Your task to perform on an android device: turn on sleep mode Image 0: 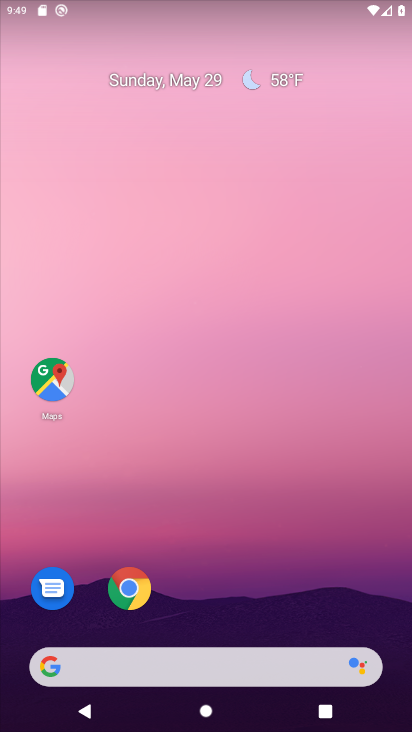
Step 0: click (123, 50)
Your task to perform on an android device: turn on sleep mode Image 1: 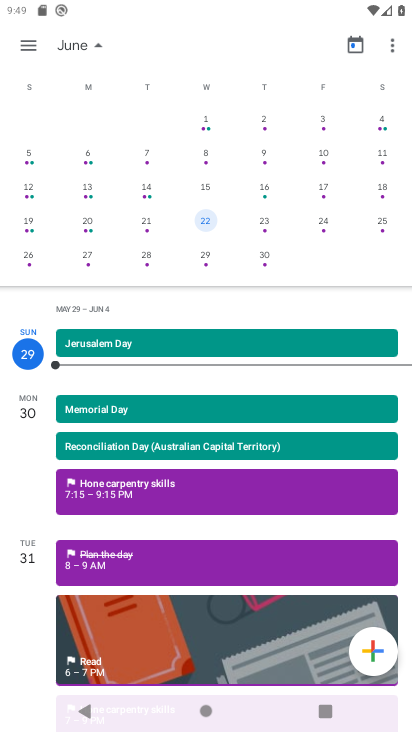
Step 1: task complete